Your task to perform on an android device: turn off location Image 0: 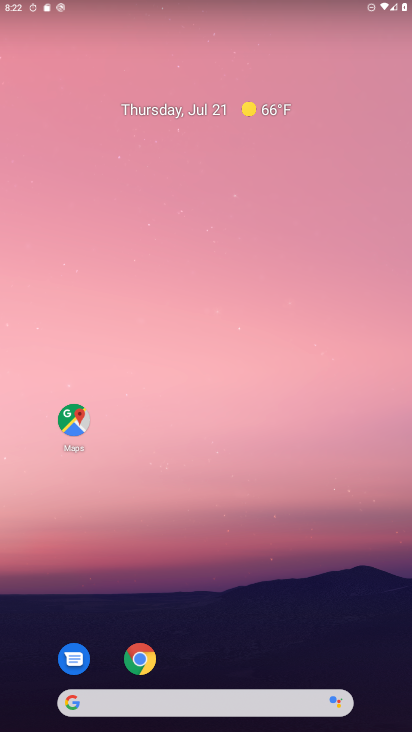
Step 0: drag from (192, 641) to (213, 189)
Your task to perform on an android device: turn off location Image 1: 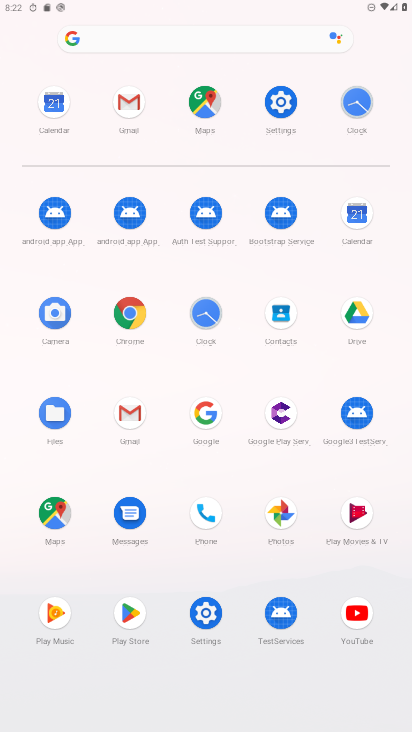
Step 1: click (287, 90)
Your task to perform on an android device: turn off location Image 2: 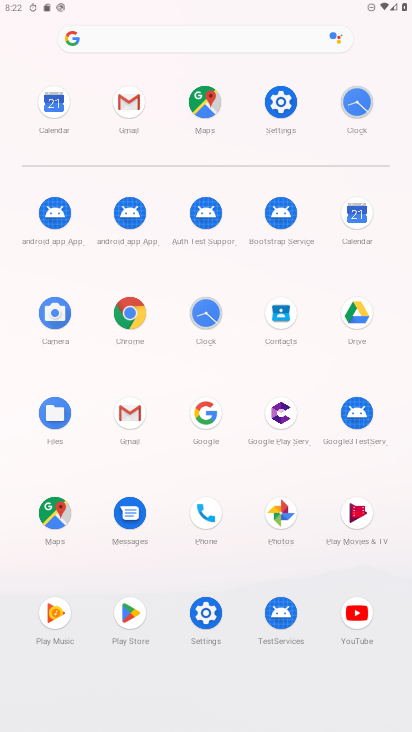
Step 2: click (287, 90)
Your task to perform on an android device: turn off location Image 3: 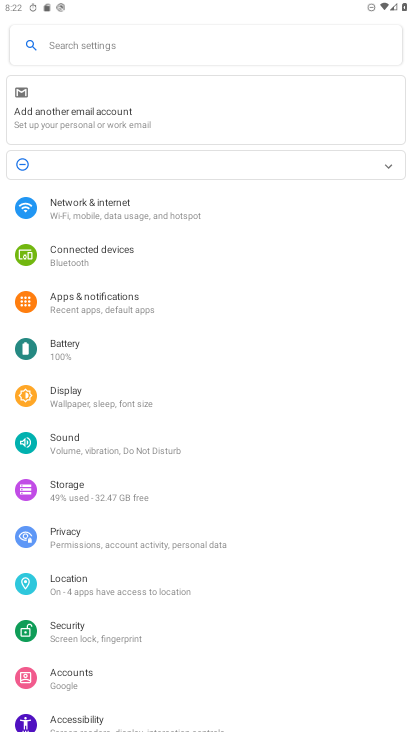
Step 3: click (95, 577)
Your task to perform on an android device: turn off location Image 4: 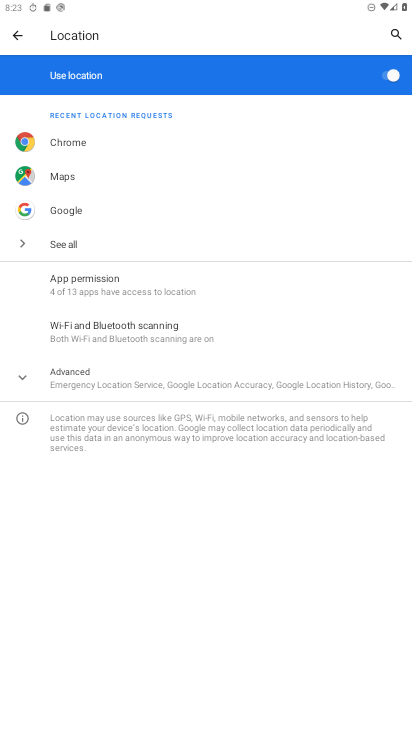
Step 4: click (387, 73)
Your task to perform on an android device: turn off location Image 5: 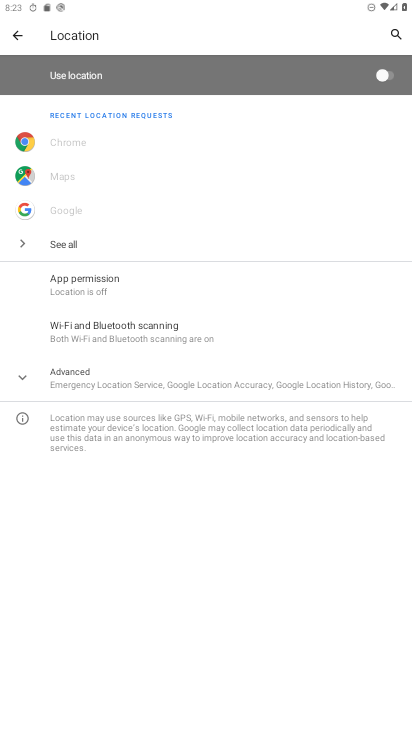
Step 5: task complete